Your task to perform on an android device: turn on improve location accuracy Image 0: 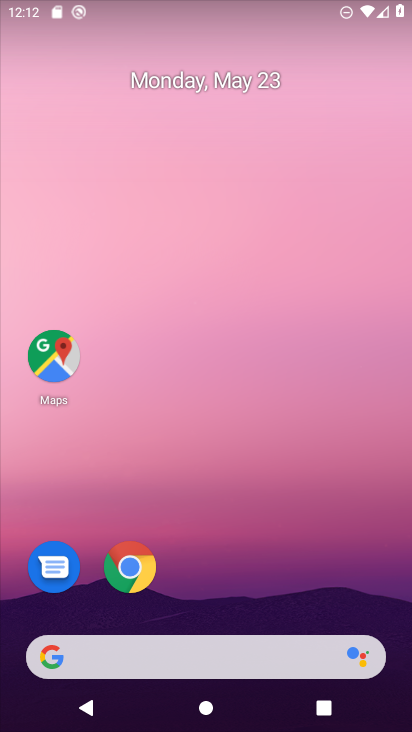
Step 0: drag from (194, 626) to (318, 8)
Your task to perform on an android device: turn on improve location accuracy Image 1: 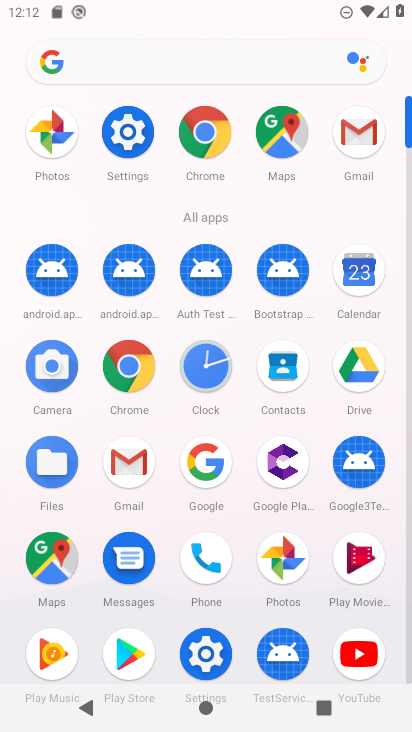
Step 1: click (125, 133)
Your task to perform on an android device: turn on improve location accuracy Image 2: 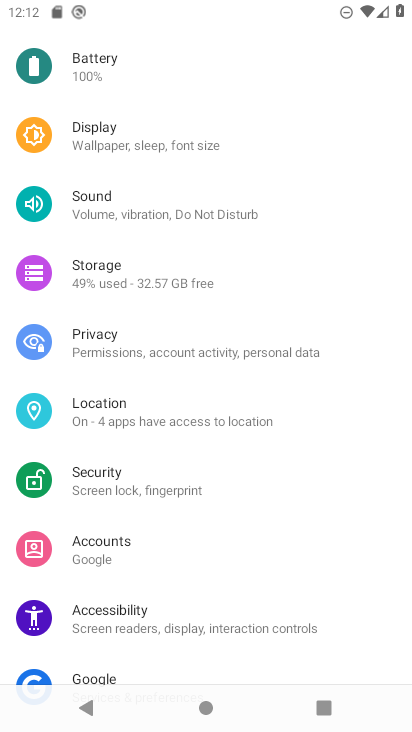
Step 2: click (94, 425)
Your task to perform on an android device: turn on improve location accuracy Image 3: 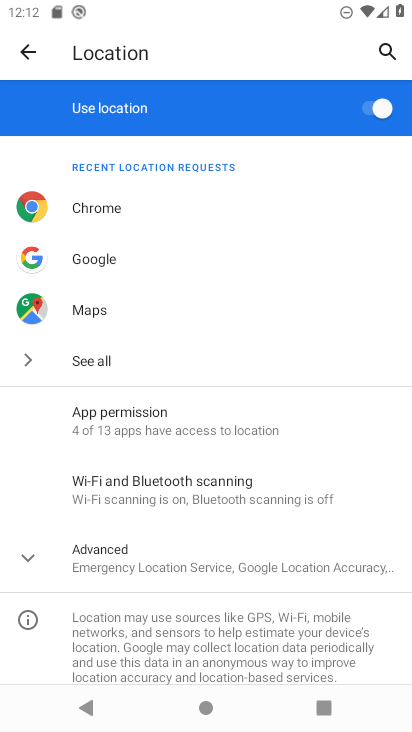
Step 3: click (91, 613)
Your task to perform on an android device: turn on improve location accuracy Image 4: 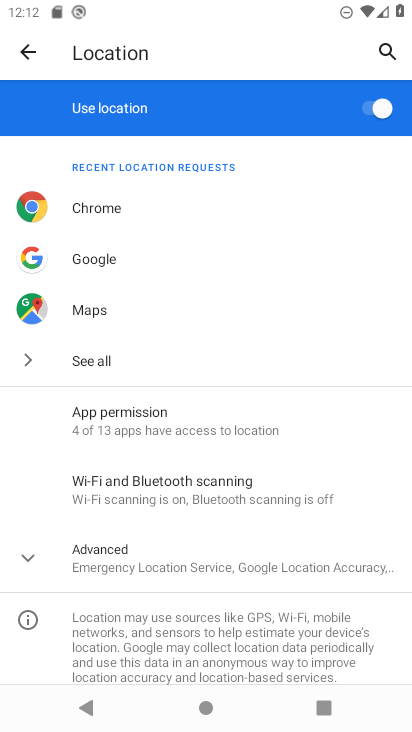
Step 4: click (95, 570)
Your task to perform on an android device: turn on improve location accuracy Image 5: 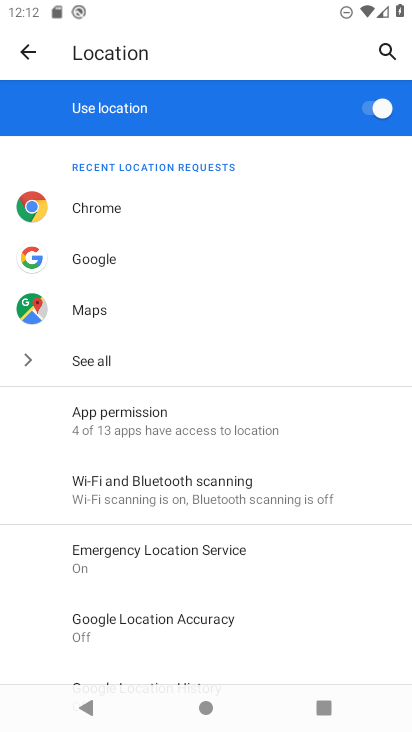
Step 5: click (129, 620)
Your task to perform on an android device: turn on improve location accuracy Image 6: 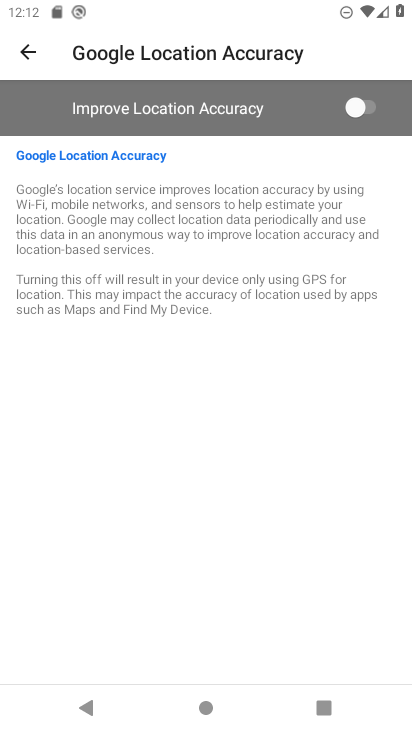
Step 6: click (371, 110)
Your task to perform on an android device: turn on improve location accuracy Image 7: 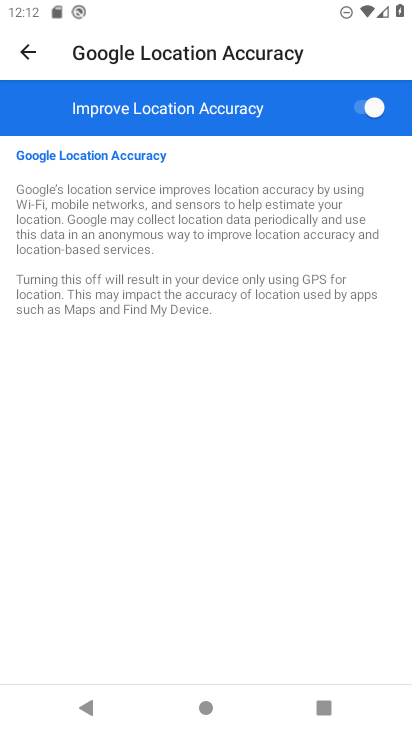
Step 7: task complete